Your task to perform on an android device: empty trash in the gmail app Image 0: 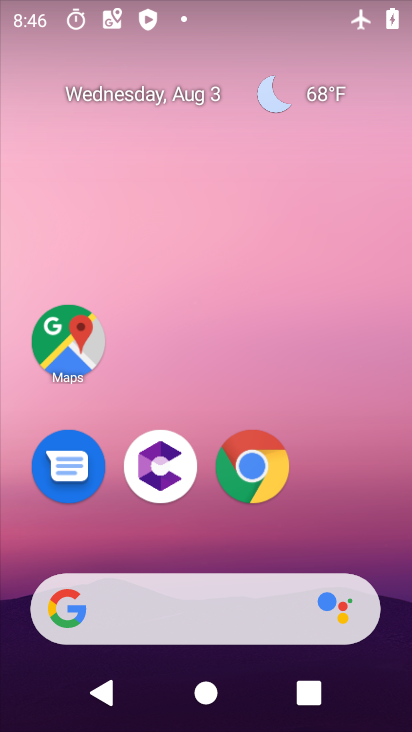
Step 0: drag from (328, 492) to (313, 26)
Your task to perform on an android device: empty trash in the gmail app Image 1: 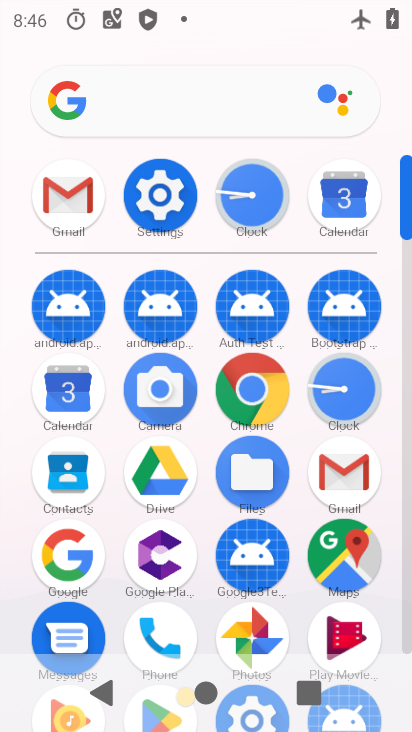
Step 1: click (73, 185)
Your task to perform on an android device: empty trash in the gmail app Image 2: 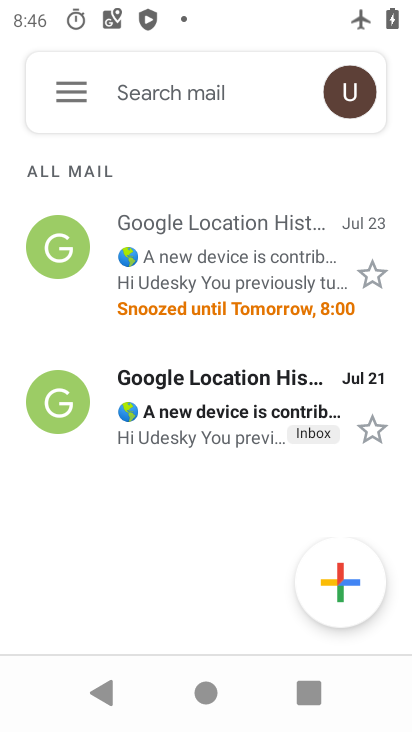
Step 2: click (86, 107)
Your task to perform on an android device: empty trash in the gmail app Image 3: 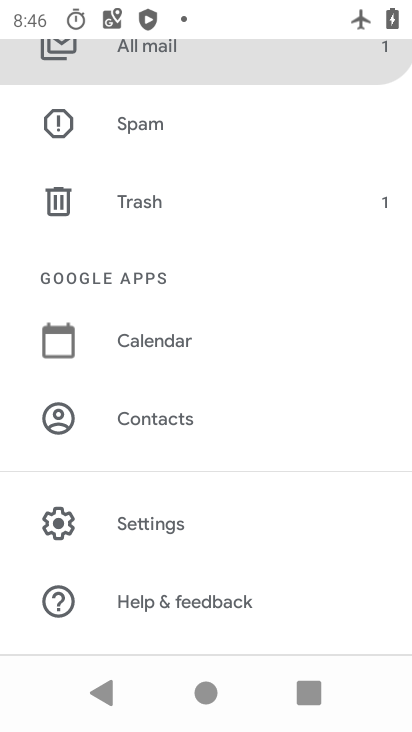
Step 3: click (144, 201)
Your task to perform on an android device: empty trash in the gmail app Image 4: 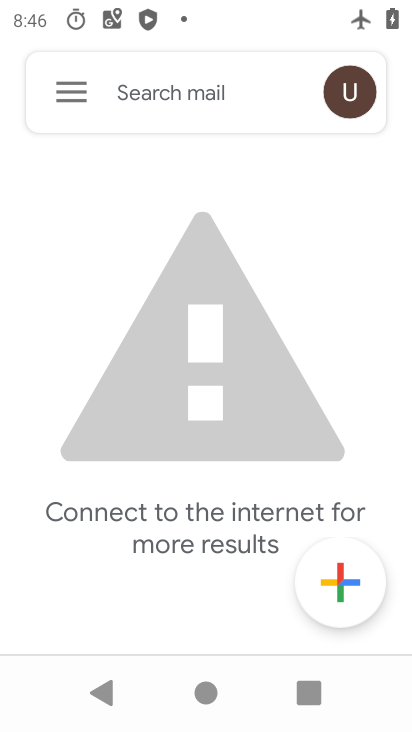
Step 4: task complete